Your task to perform on an android device: What is the news today? Image 0: 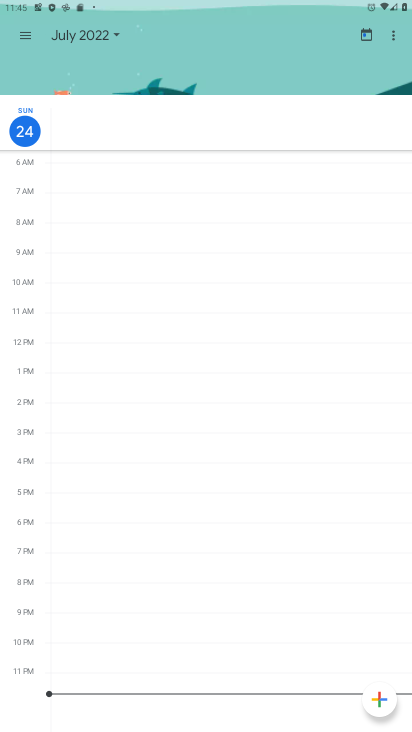
Step 0: press home button
Your task to perform on an android device: What is the news today? Image 1: 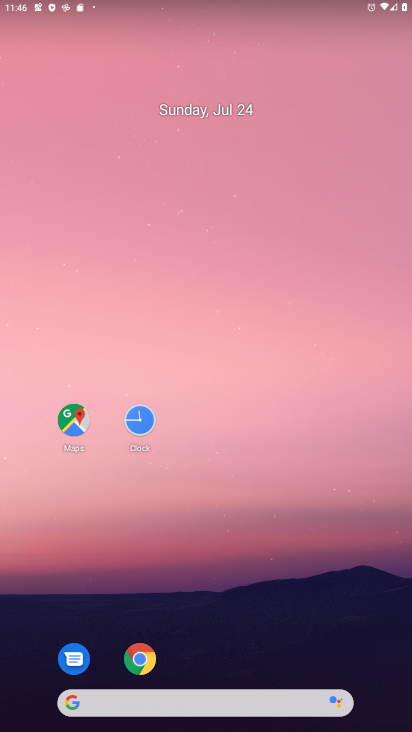
Step 1: task complete